Your task to perform on an android device: turn off wifi Image 0: 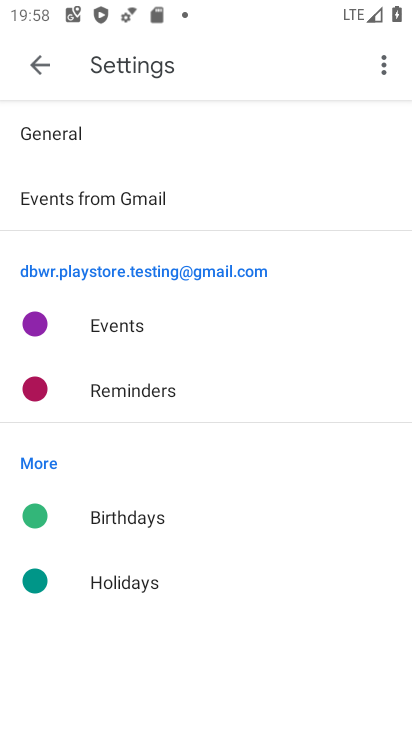
Step 0: drag from (242, 12) to (305, 605)
Your task to perform on an android device: turn off wifi Image 1: 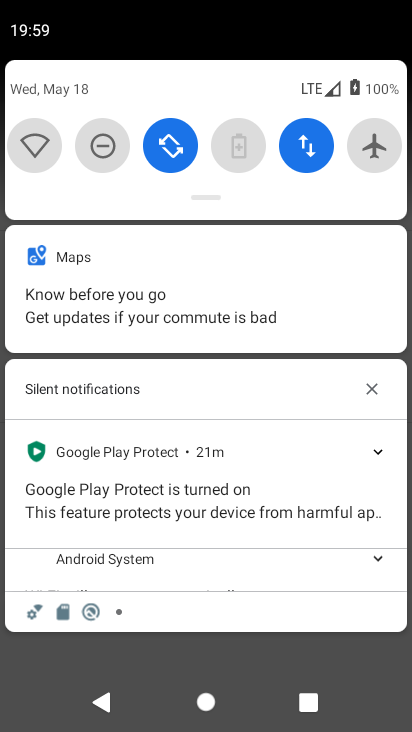
Step 1: task complete